Your task to perform on an android device: open the mobile data screen to see how much data has been used Image 0: 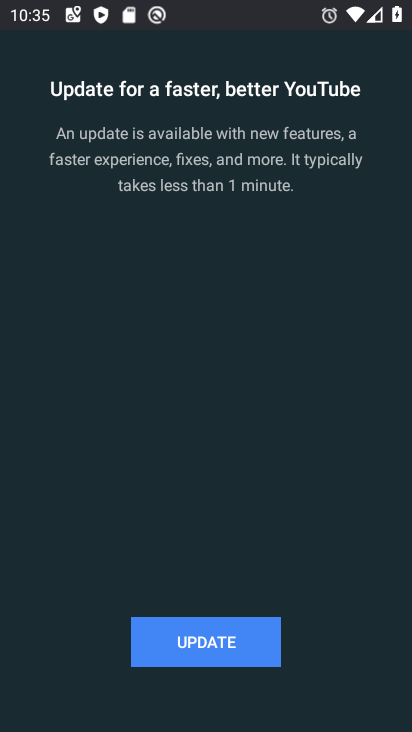
Step 0: press home button
Your task to perform on an android device: open the mobile data screen to see how much data has been used Image 1: 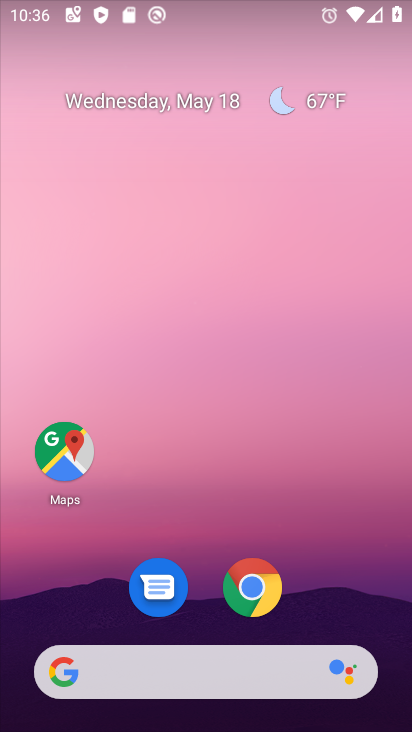
Step 1: click (388, 516)
Your task to perform on an android device: open the mobile data screen to see how much data has been used Image 2: 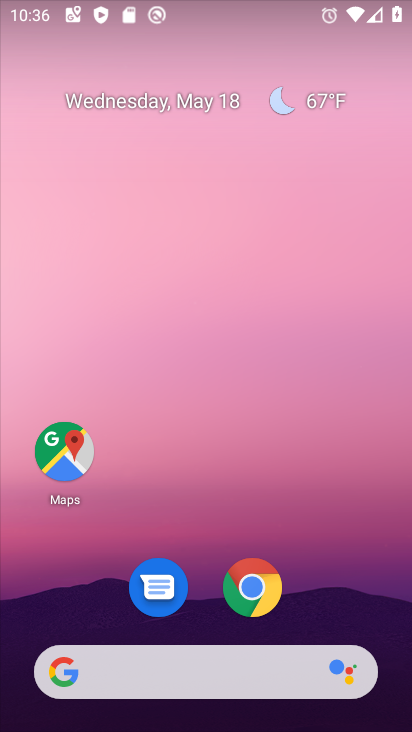
Step 2: drag from (309, 605) to (167, 154)
Your task to perform on an android device: open the mobile data screen to see how much data has been used Image 3: 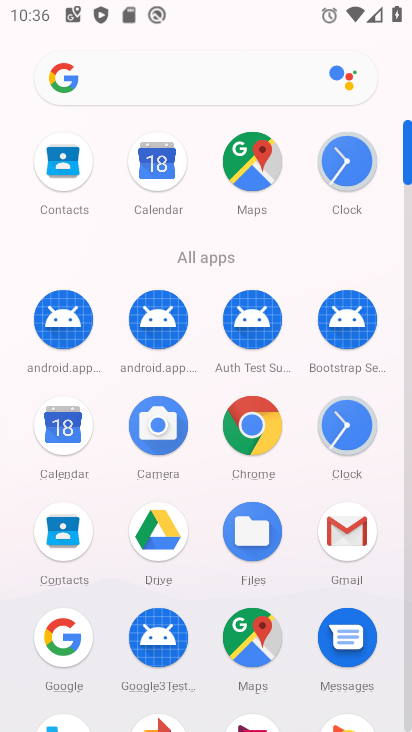
Step 3: drag from (298, 588) to (268, 249)
Your task to perform on an android device: open the mobile data screen to see how much data has been used Image 4: 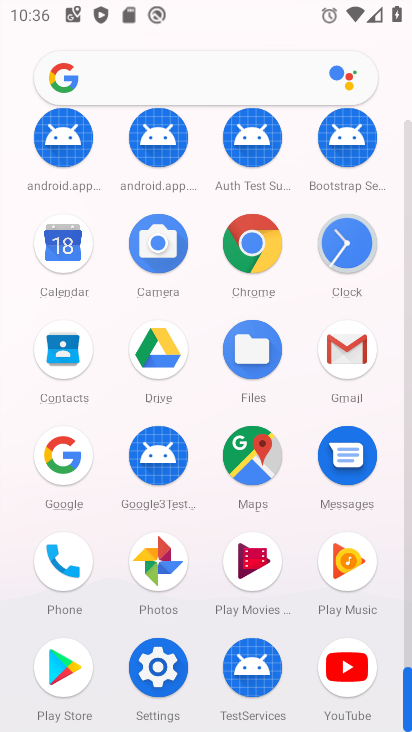
Step 4: click (165, 669)
Your task to perform on an android device: open the mobile data screen to see how much data has been used Image 5: 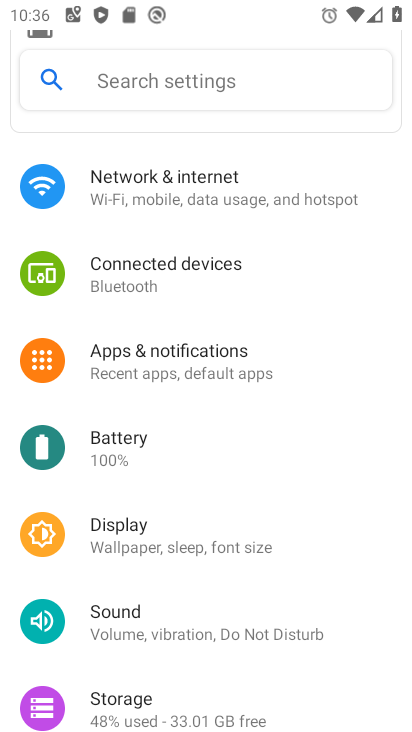
Step 5: click (190, 179)
Your task to perform on an android device: open the mobile data screen to see how much data has been used Image 6: 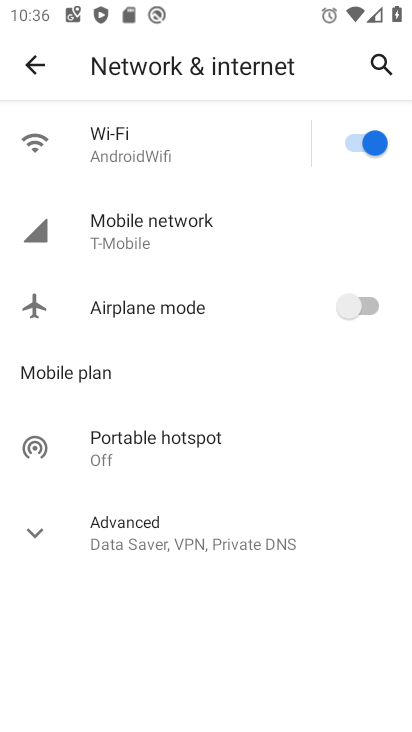
Step 6: click (195, 229)
Your task to perform on an android device: open the mobile data screen to see how much data has been used Image 7: 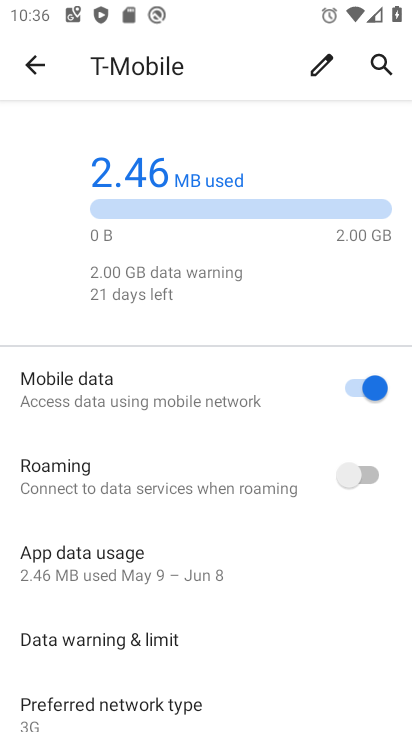
Step 7: click (173, 575)
Your task to perform on an android device: open the mobile data screen to see how much data has been used Image 8: 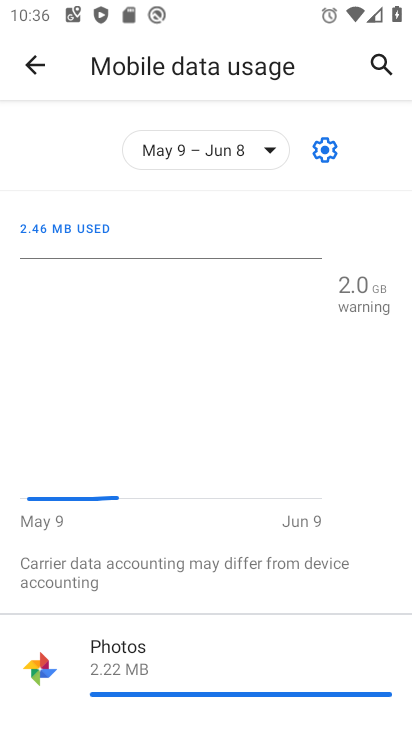
Step 8: task complete